Your task to perform on an android device: Open the Play Movies app and select the watchlist tab. Image 0: 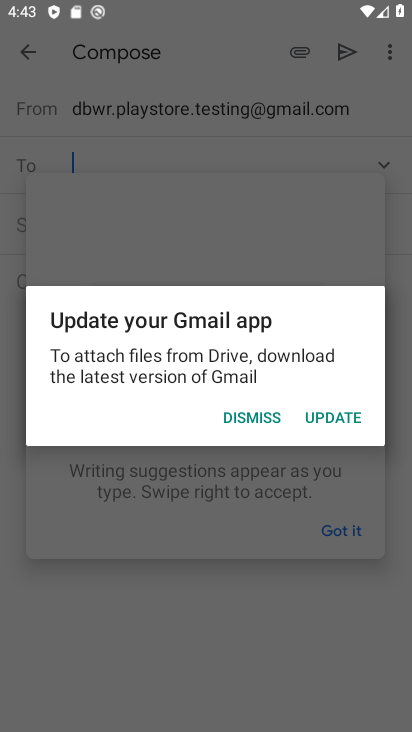
Step 0: press home button
Your task to perform on an android device: Open the Play Movies app and select the watchlist tab. Image 1: 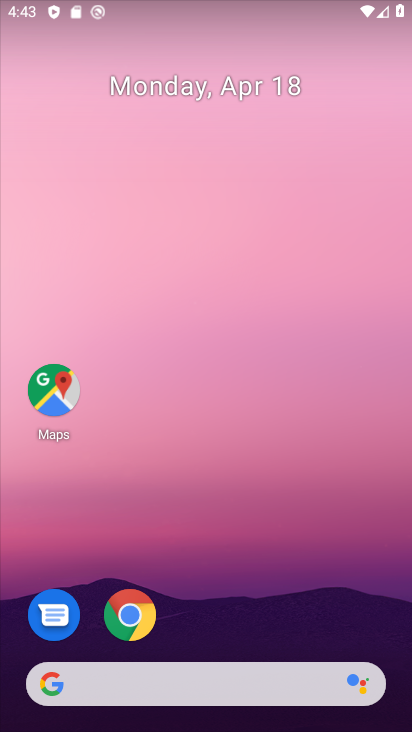
Step 1: drag from (307, 505) to (302, 102)
Your task to perform on an android device: Open the Play Movies app and select the watchlist tab. Image 2: 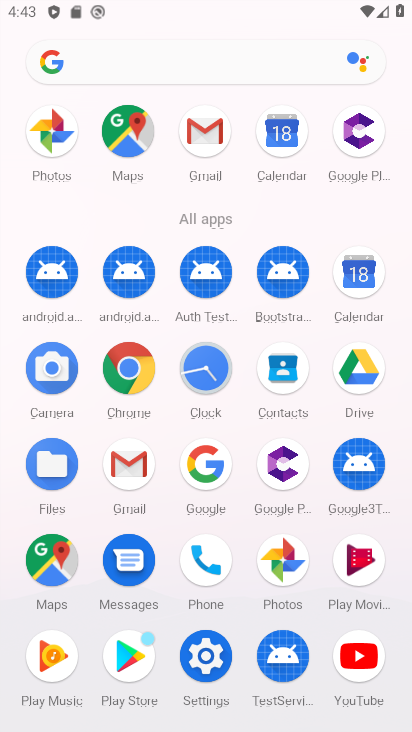
Step 2: click (367, 557)
Your task to perform on an android device: Open the Play Movies app and select the watchlist tab. Image 3: 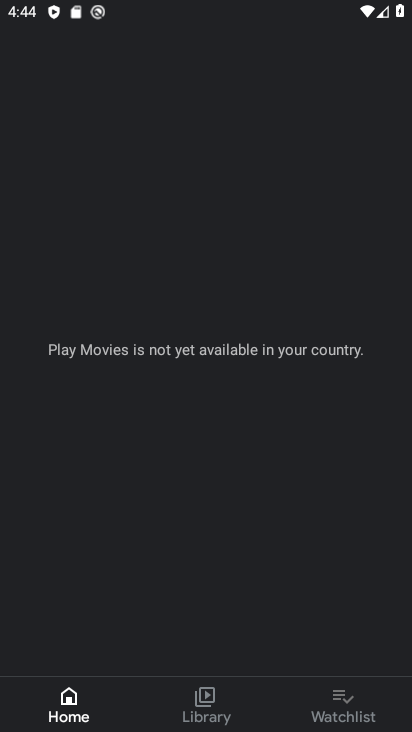
Step 3: click (344, 704)
Your task to perform on an android device: Open the Play Movies app and select the watchlist tab. Image 4: 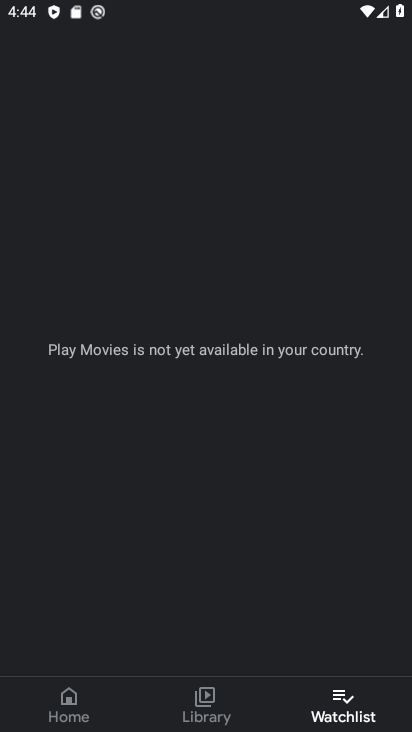
Step 4: task complete